Your task to perform on an android device: snooze an email in the gmail app Image 0: 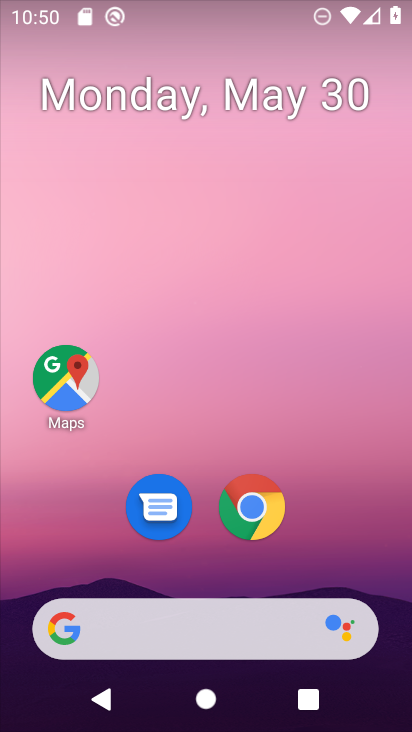
Step 0: drag from (396, 639) to (283, 80)
Your task to perform on an android device: snooze an email in the gmail app Image 1: 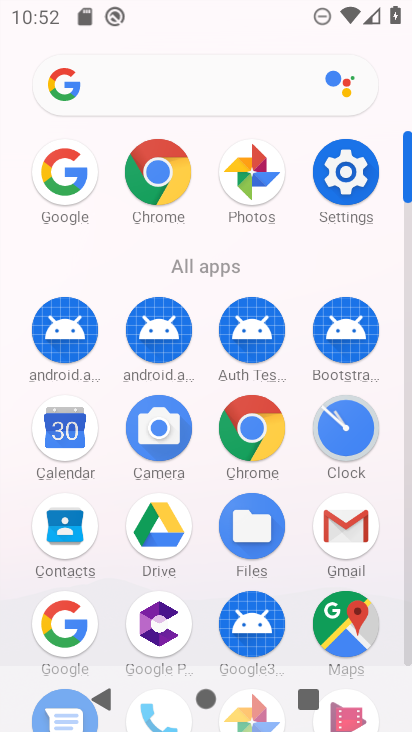
Step 1: click (354, 514)
Your task to perform on an android device: snooze an email in the gmail app Image 2: 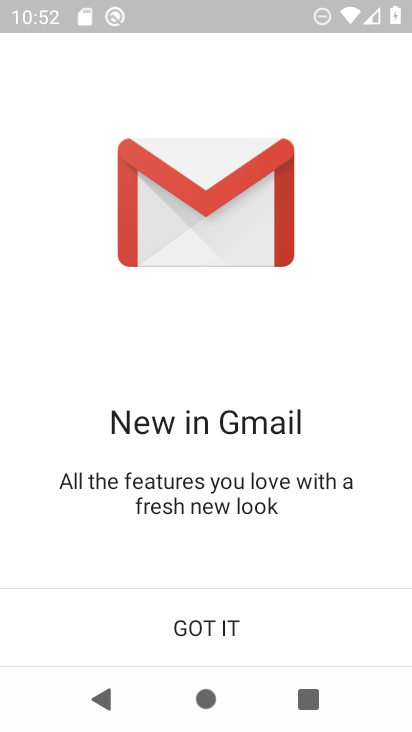
Step 2: click (211, 643)
Your task to perform on an android device: snooze an email in the gmail app Image 3: 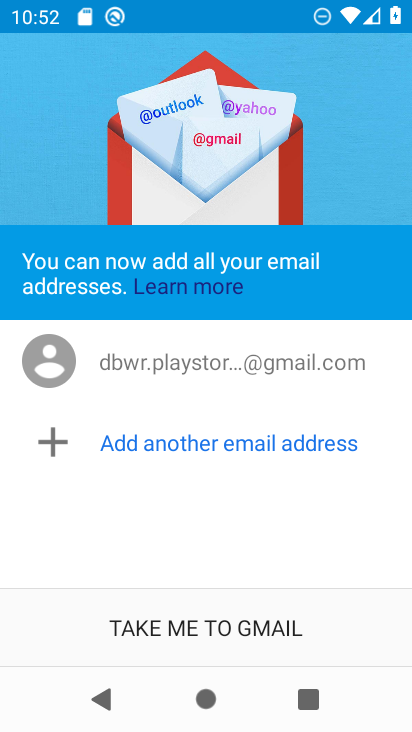
Step 3: click (223, 615)
Your task to perform on an android device: snooze an email in the gmail app Image 4: 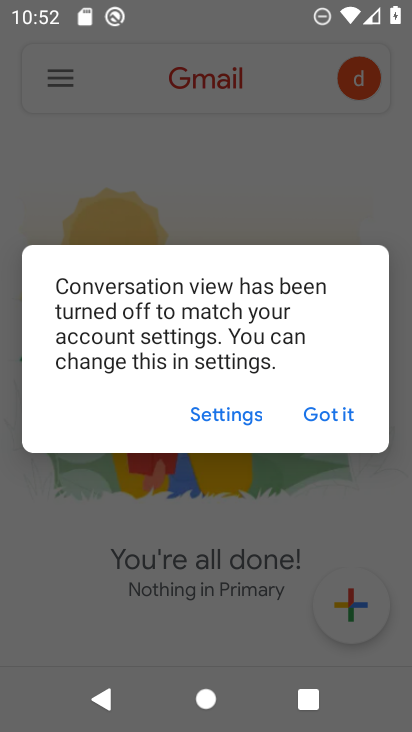
Step 4: click (338, 408)
Your task to perform on an android device: snooze an email in the gmail app Image 5: 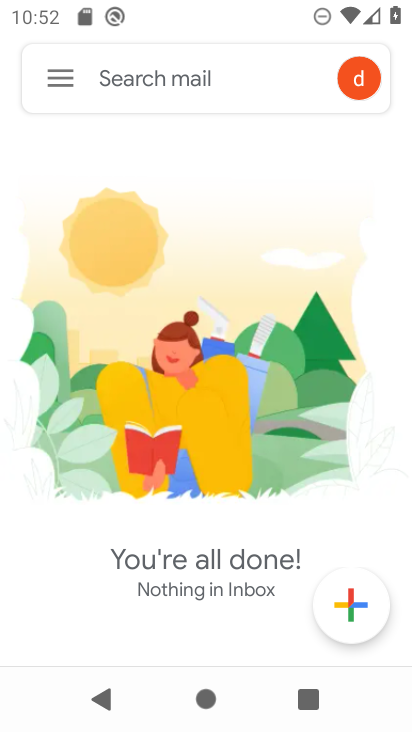
Step 5: task complete